Your task to perform on an android device: change notifications settings Image 0: 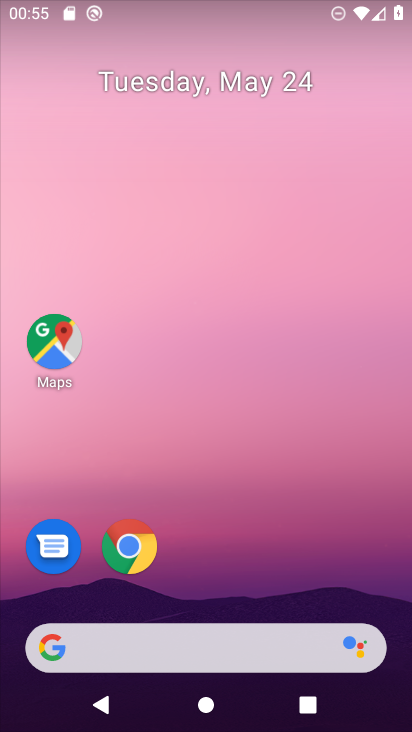
Step 0: drag from (274, 651) to (294, 43)
Your task to perform on an android device: change notifications settings Image 1: 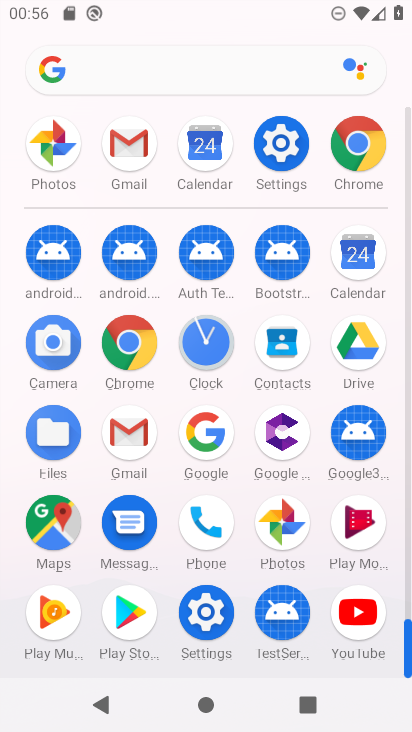
Step 1: click (287, 146)
Your task to perform on an android device: change notifications settings Image 2: 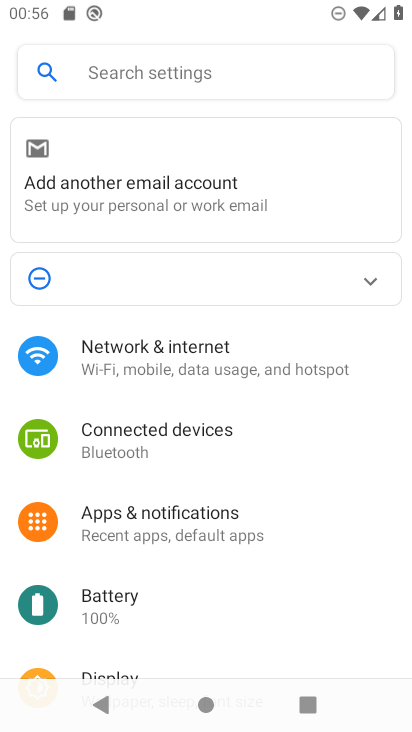
Step 2: click (244, 510)
Your task to perform on an android device: change notifications settings Image 3: 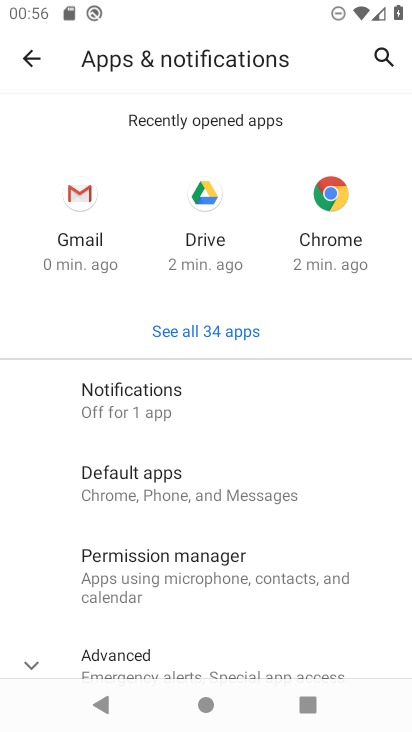
Step 3: click (175, 395)
Your task to perform on an android device: change notifications settings Image 4: 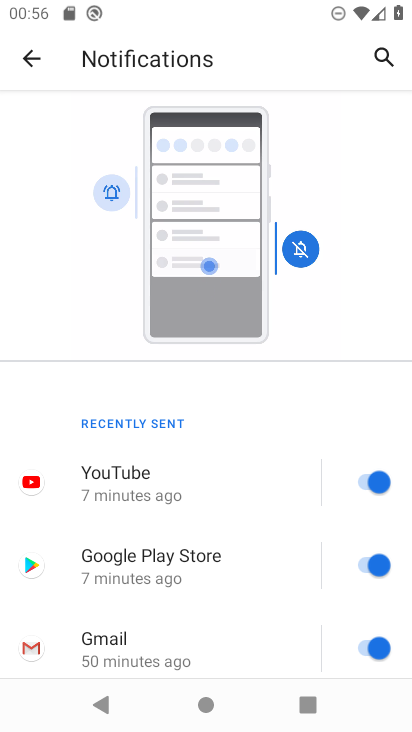
Step 4: click (382, 482)
Your task to perform on an android device: change notifications settings Image 5: 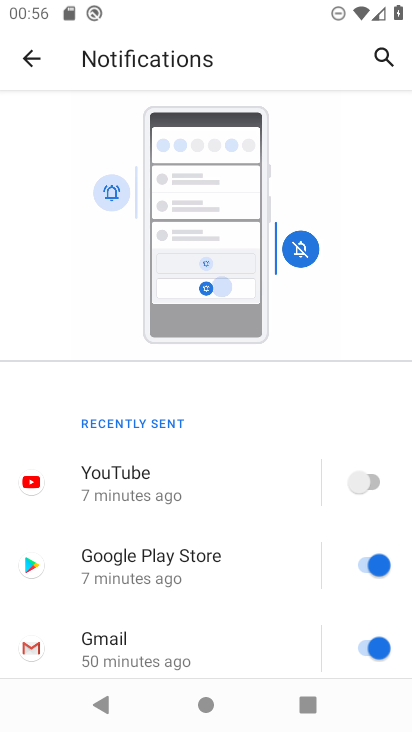
Step 5: click (370, 557)
Your task to perform on an android device: change notifications settings Image 6: 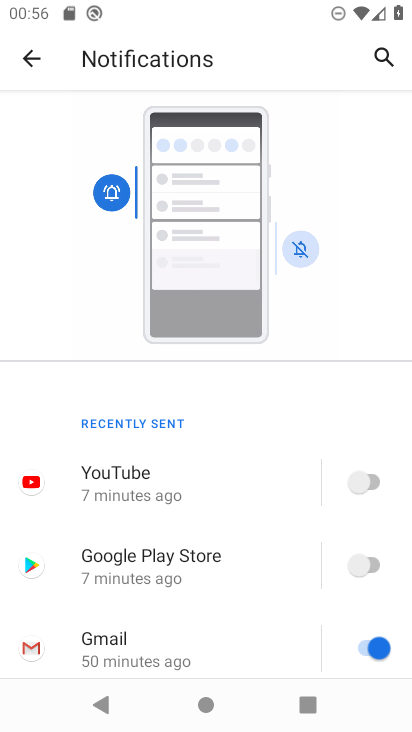
Step 6: click (360, 649)
Your task to perform on an android device: change notifications settings Image 7: 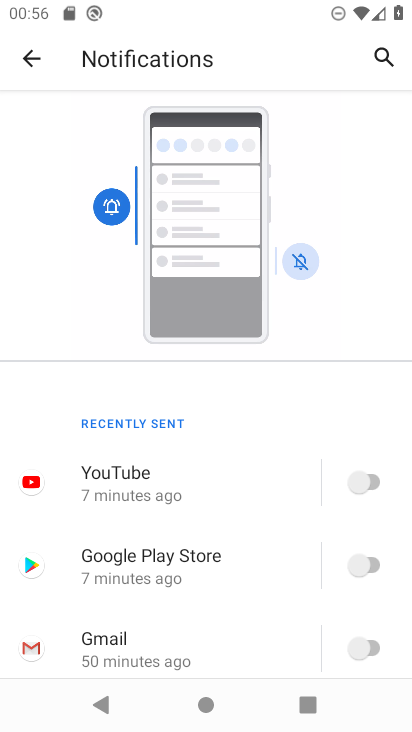
Step 7: task complete